Your task to perform on an android device: Show me productivity apps on the Play Store Image 0: 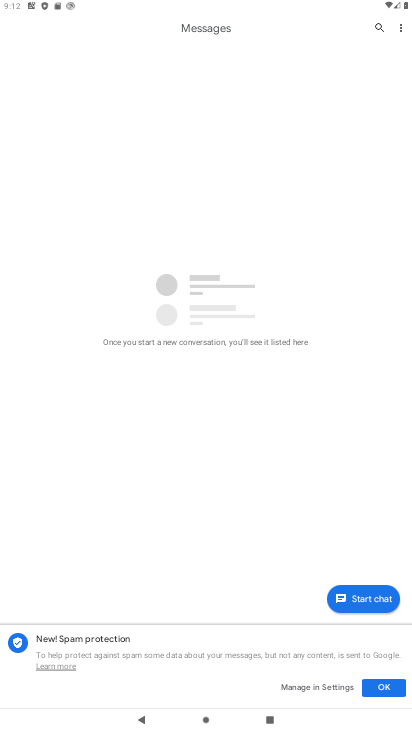
Step 0: press home button
Your task to perform on an android device: Show me productivity apps on the Play Store Image 1: 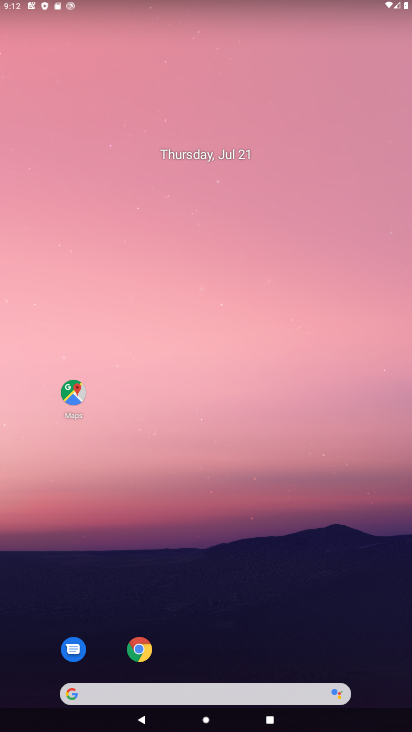
Step 1: drag from (198, 658) to (170, 11)
Your task to perform on an android device: Show me productivity apps on the Play Store Image 2: 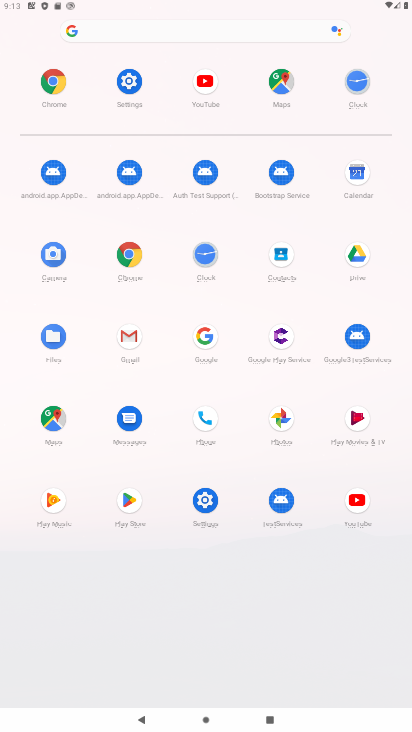
Step 2: click (129, 506)
Your task to perform on an android device: Show me productivity apps on the Play Store Image 3: 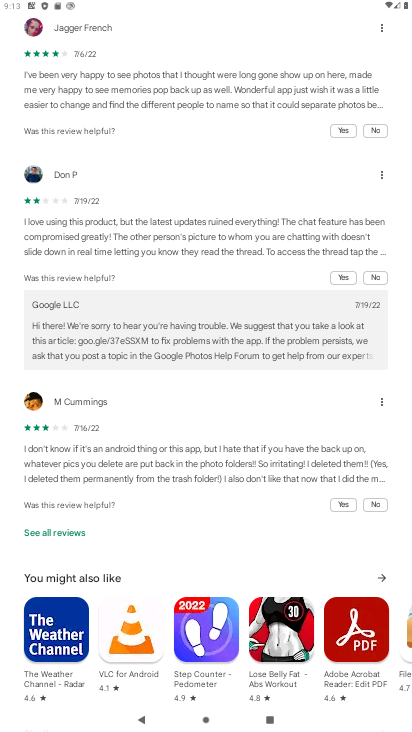
Step 3: drag from (163, 145) to (180, 707)
Your task to perform on an android device: Show me productivity apps on the Play Store Image 4: 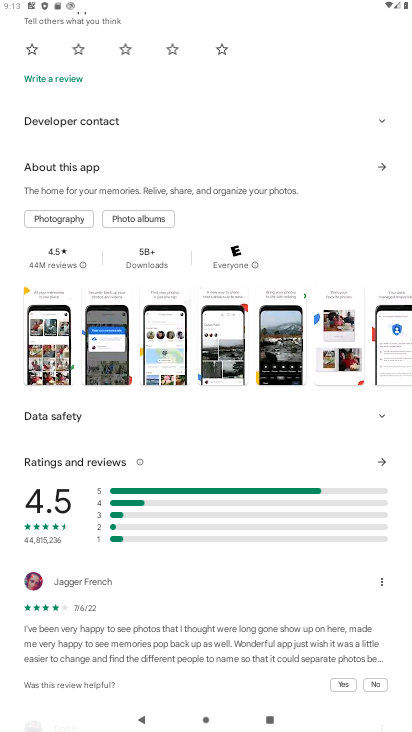
Step 4: drag from (178, 136) to (197, 730)
Your task to perform on an android device: Show me productivity apps on the Play Store Image 5: 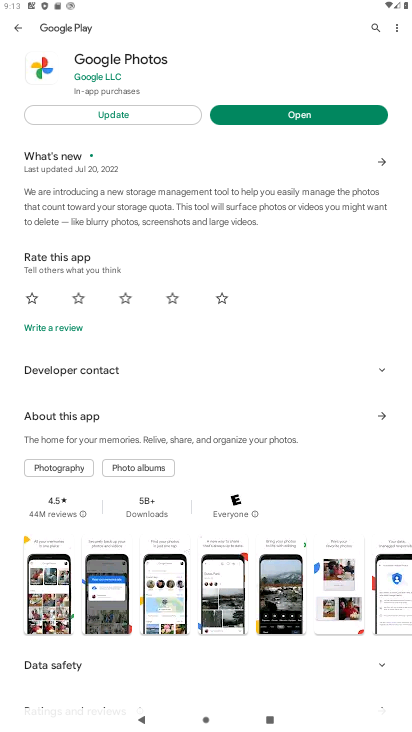
Step 5: press back button
Your task to perform on an android device: Show me productivity apps on the Play Store Image 6: 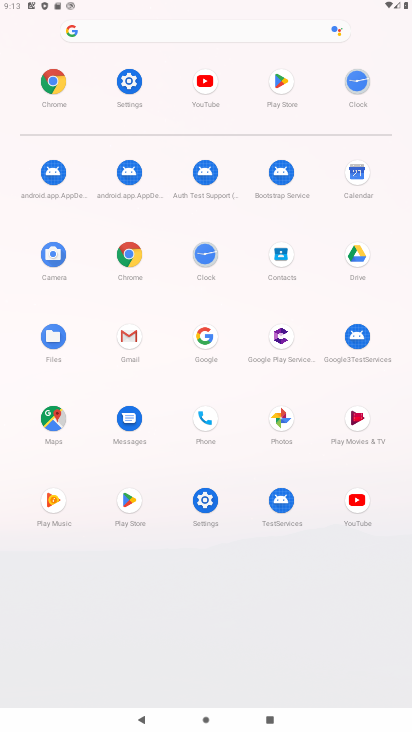
Step 6: click (138, 517)
Your task to perform on an android device: Show me productivity apps on the Play Store Image 7: 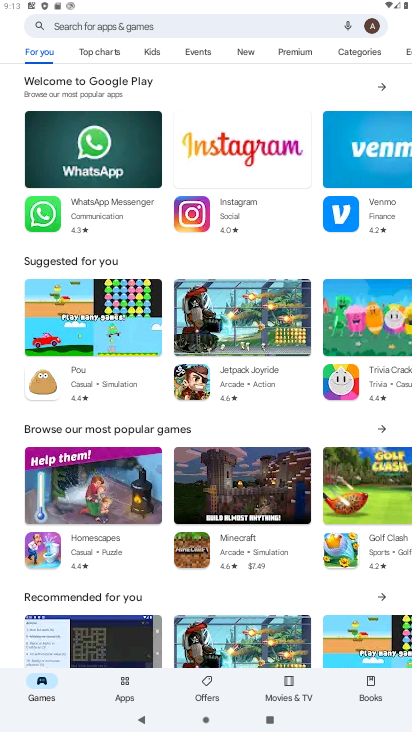
Step 7: click (125, 688)
Your task to perform on an android device: Show me productivity apps on the Play Store Image 8: 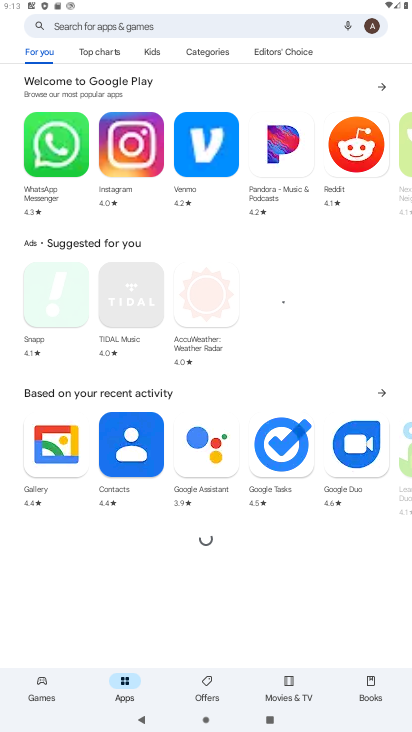
Step 8: click (214, 56)
Your task to perform on an android device: Show me productivity apps on the Play Store Image 9: 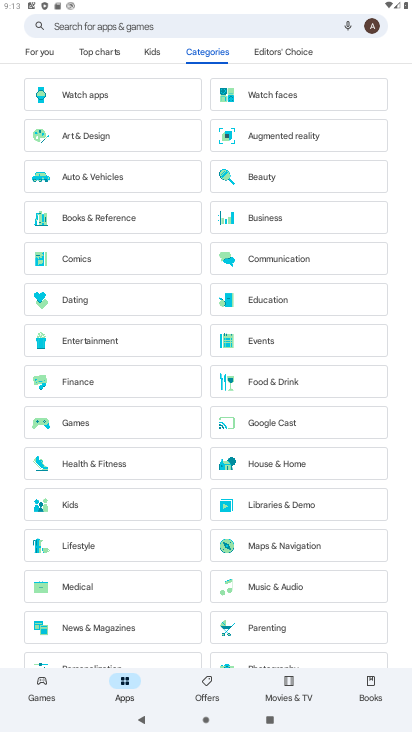
Step 9: drag from (177, 596) to (175, 376)
Your task to perform on an android device: Show me productivity apps on the Play Store Image 10: 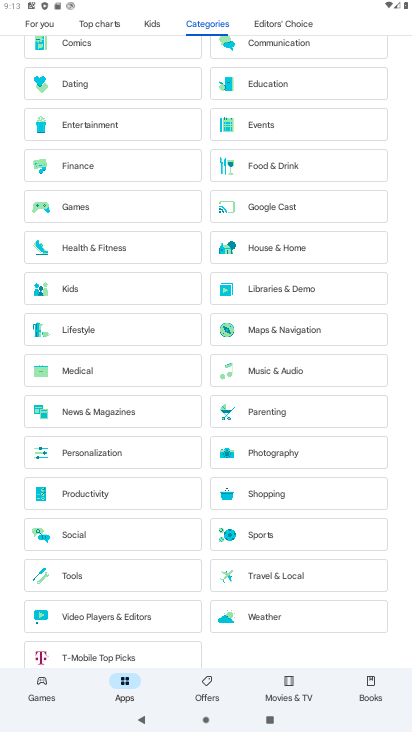
Step 10: click (113, 491)
Your task to perform on an android device: Show me productivity apps on the Play Store Image 11: 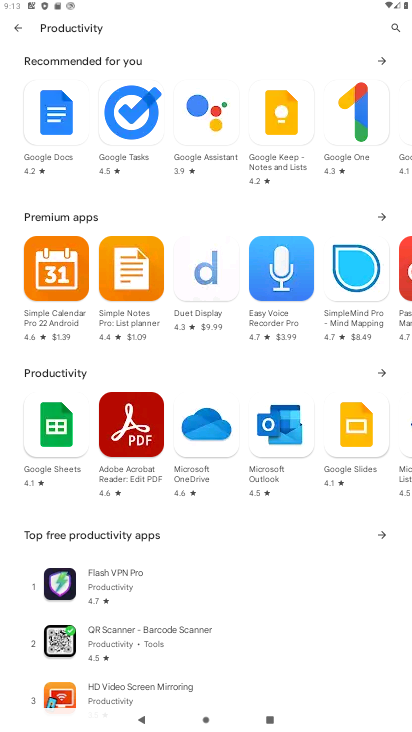
Step 11: task complete